Your task to perform on an android device: turn on priority inbox in the gmail app Image 0: 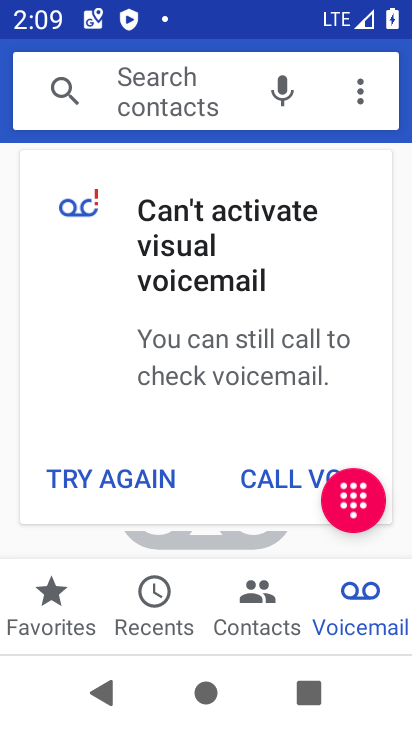
Step 0: press home button
Your task to perform on an android device: turn on priority inbox in the gmail app Image 1: 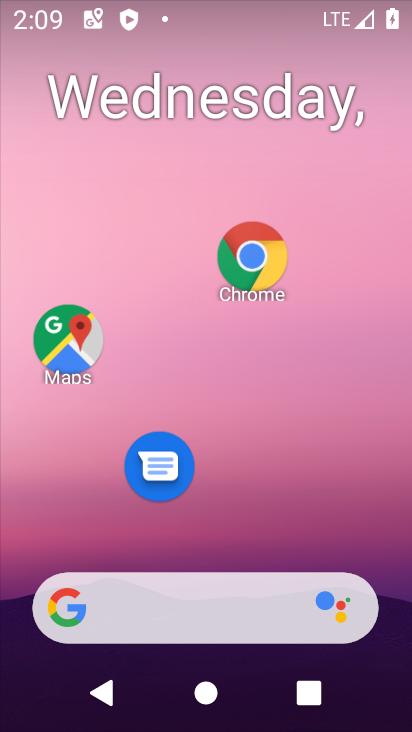
Step 1: drag from (396, 704) to (295, 115)
Your task to perform on an android device: turn on priority inbox in the gmail app Image 2: 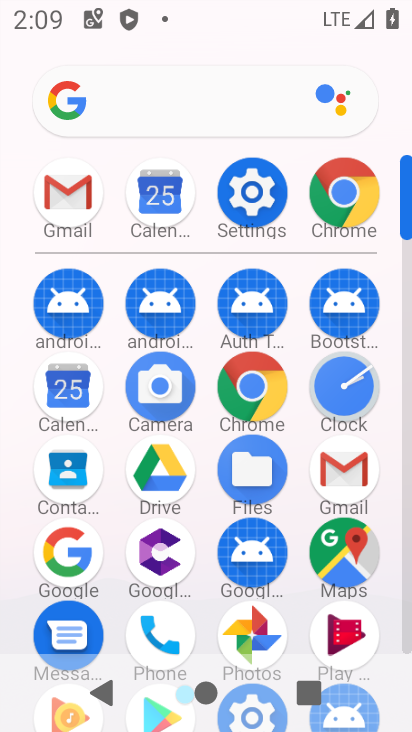
Step 2: click (357, 445)
Your task to perform on an android device: turn on priority inbox in the gmail app Image 3: 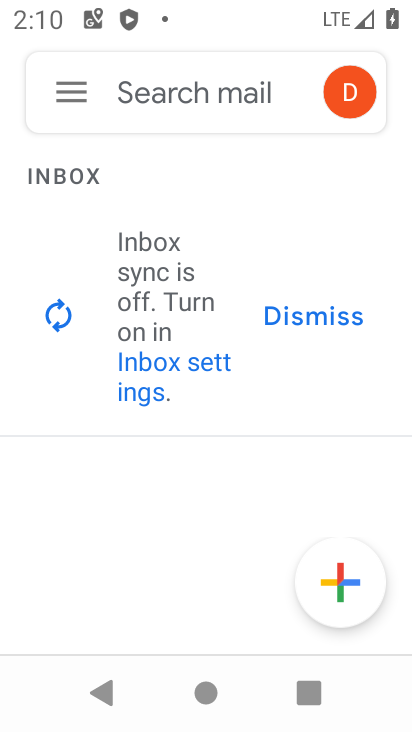
Step 3: click (72, 89)
Your task to perform on an android device: turn on priority inbox in the gmail app Image 4: 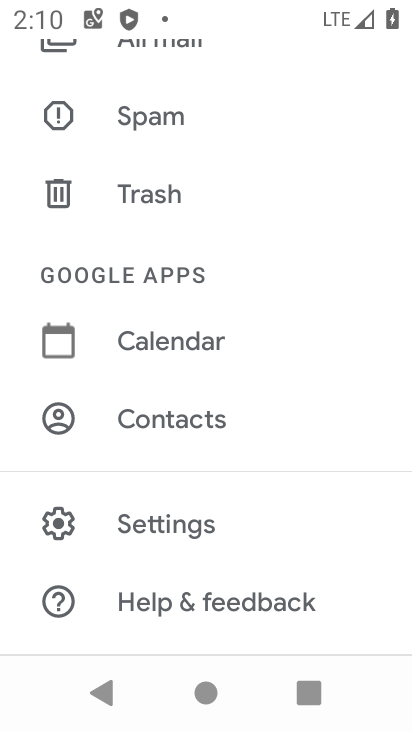
Step 4: click (173, 530)
Your task to perform on an android device: turn on priority inbox in the gmail app Image 5: 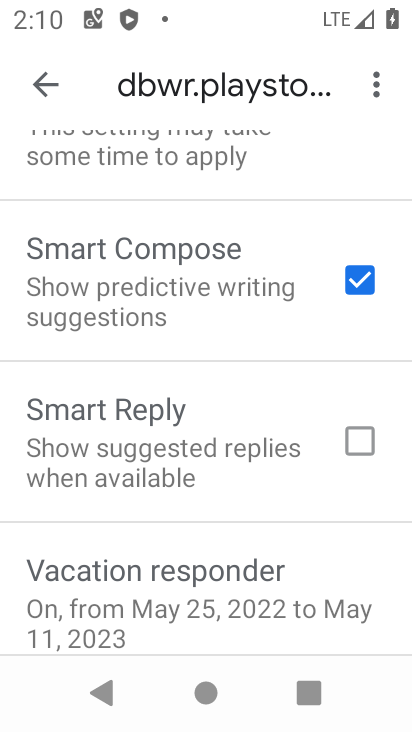
Step 5: drag from (206, 161) to (213, 693)
Your task to perform on an android device: turn on priority inbox in the gmail app Image 6: 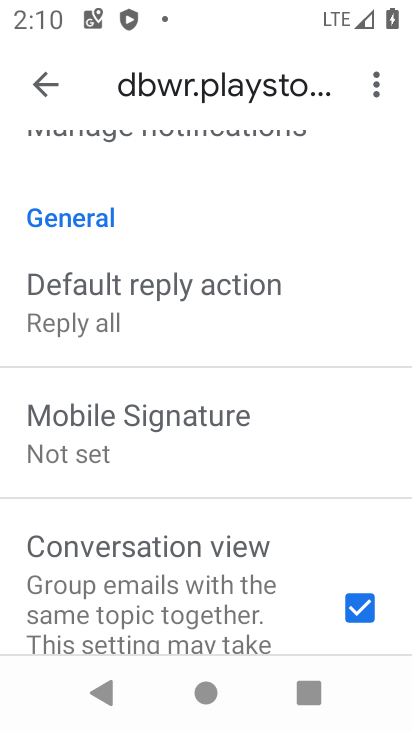
Step 6: drag from (187, 220) to (204, 565)
Your task to perform on an android device: turn on priority inbox in the gmail app Image 7: 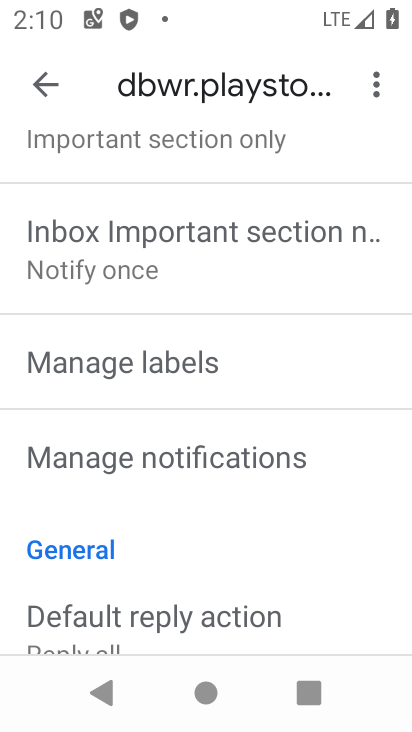
Step 7: drag from (260, 222) to (258, 697)
Your task to perform on an android device: turn on priority inbox in the gmail app Image 8: 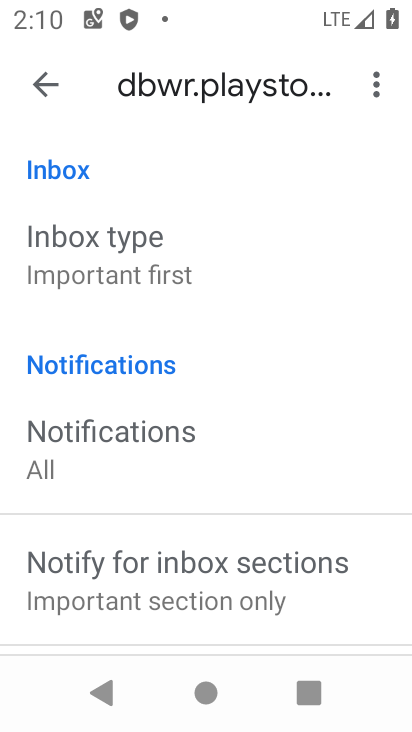
Step 8: drag from (206, 189) to (201, 665)
Your task to perform on an android device: turn on priority inbox in the gmail app Image 9: 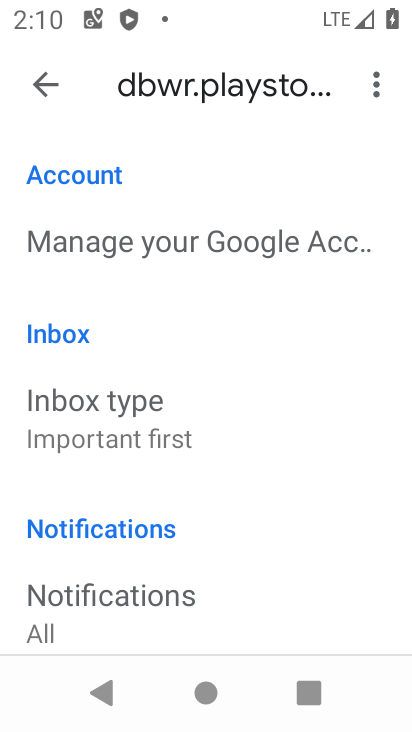
Step 9: click (140, 439)
Your task to perform on an android device: turn on priority inbox in the gmail app Image 10: 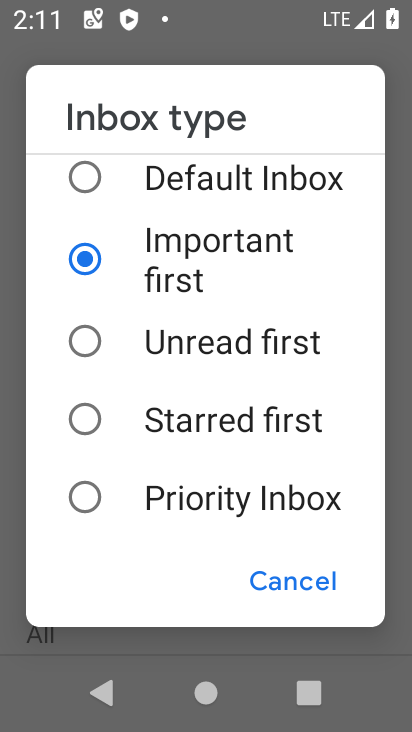
Step 10: click (91, 503)
Your task to perform on an android device: turn on priority inbox in the gmail app Image 11: 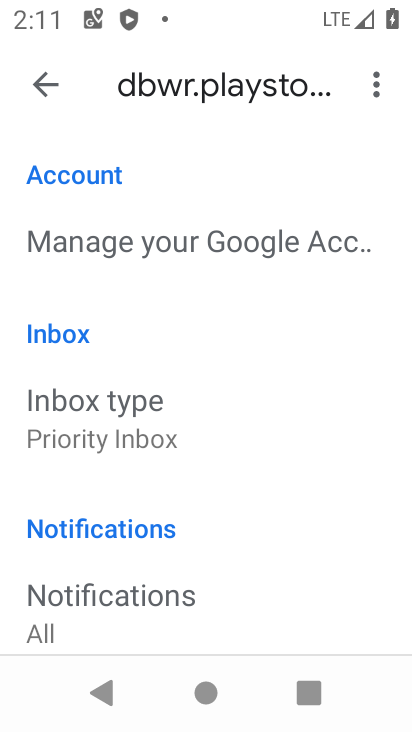
Step 11: task complete